Your task to perform on an android device: open the mobile data screen to see how much data has been used Image 0: 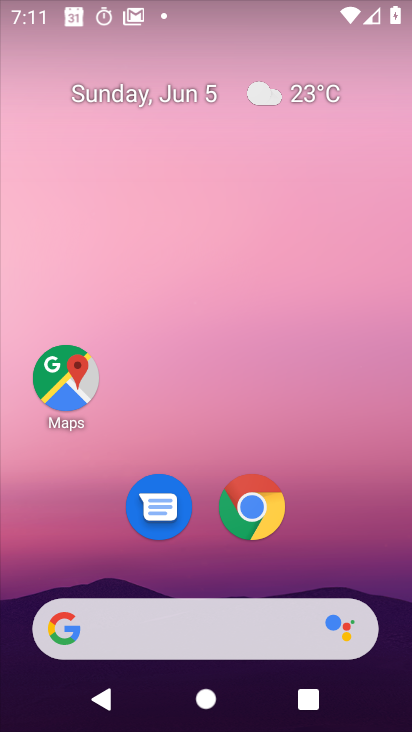
Step 0: drag from (269, 651) to (236, 131)
Your task to perform on an android device: open the mobile data screen to see how much data has been used Image 1: 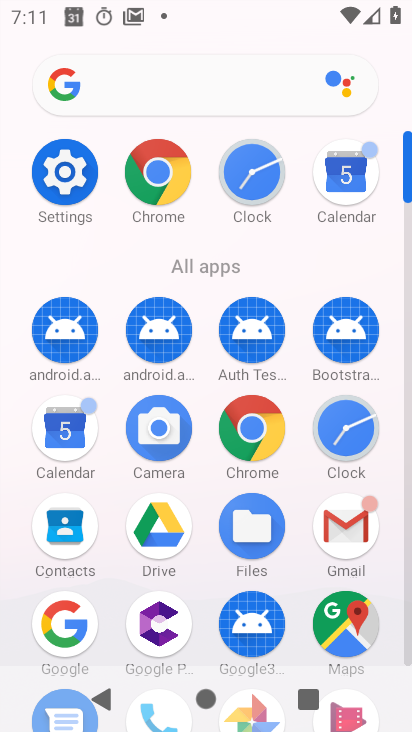
Step 1: click (74, 187)
Your task to perform on an android device: open the mobile data screen to see how much data has been used Image 2: 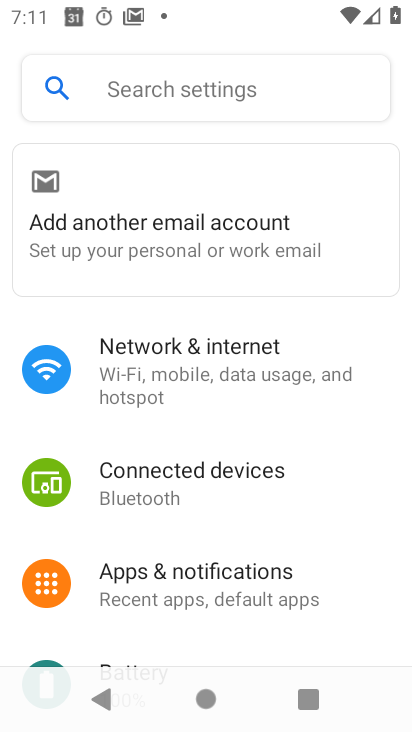
Step 2: click (218, 99)
Your task to perform on an android device: open the mobile data screen to see how much data has been used Image 3: 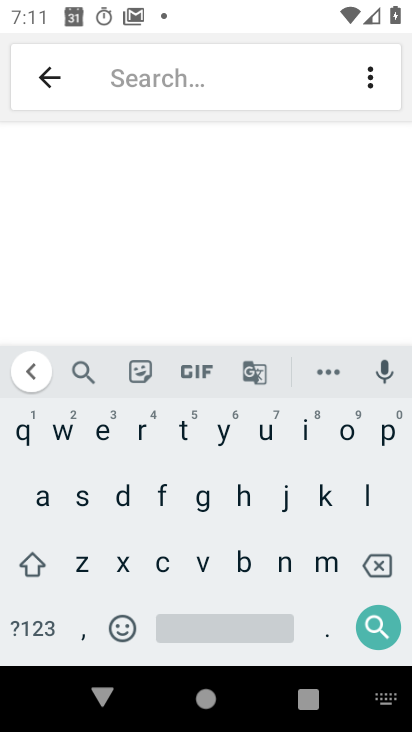
Step 3: click (119, 494)
Your task to perform on an android device: open the mobile data screen to see how much data has been used Image 4: 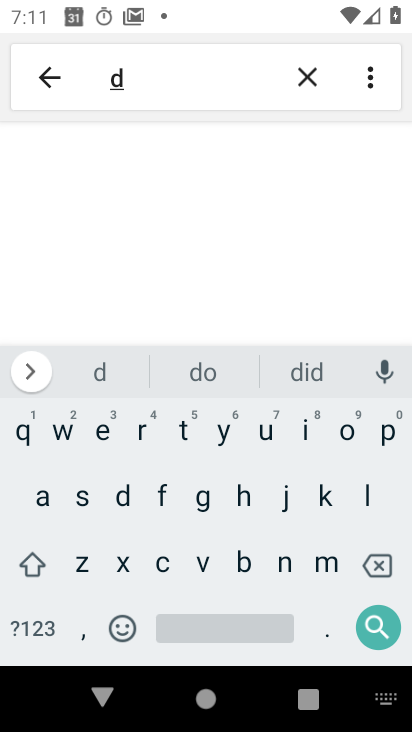
Step 4: click (35, 481)
Your task to perform on an android device: open the mobile data screen to see how much data has been used Image 5: 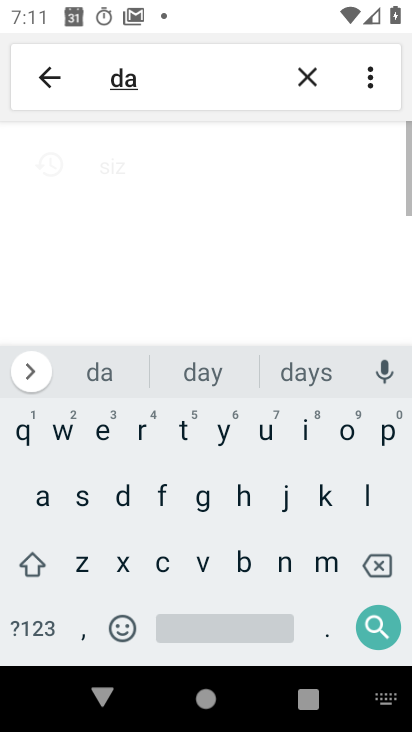
Step 5: click (178, 434)
Your task to perform on an android device: open the mobile data screen to see how much data has been used Image 6: 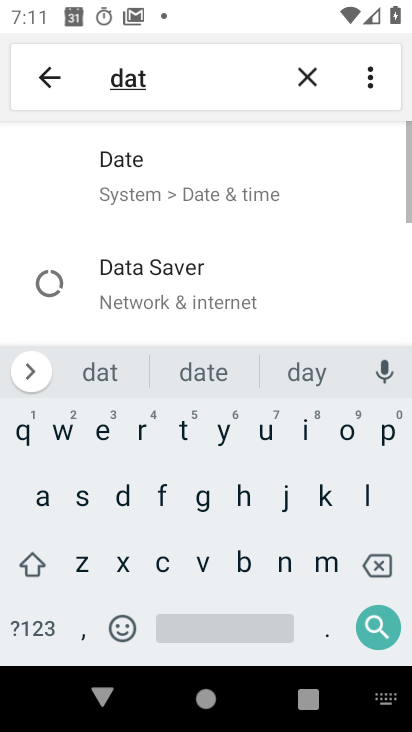
Step 6: click (45, 485)
Your task to perform on an android device: open the mobile data screen to see how much data has been used Image 7: 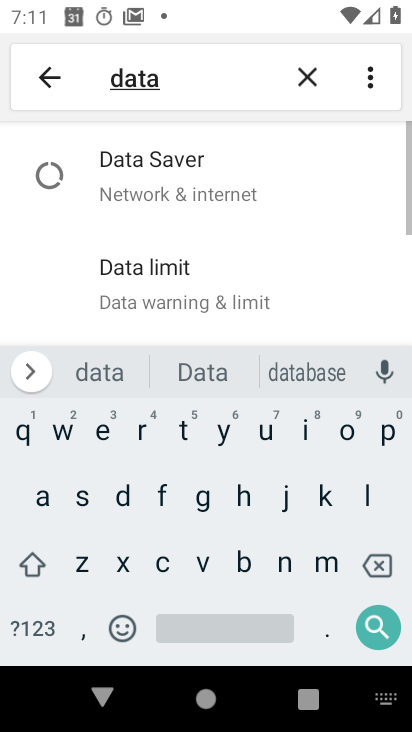
Step 7: click (189, 625)
Your task to perform on an android device: open the mobile data screen to see how much data has been used Image 8: 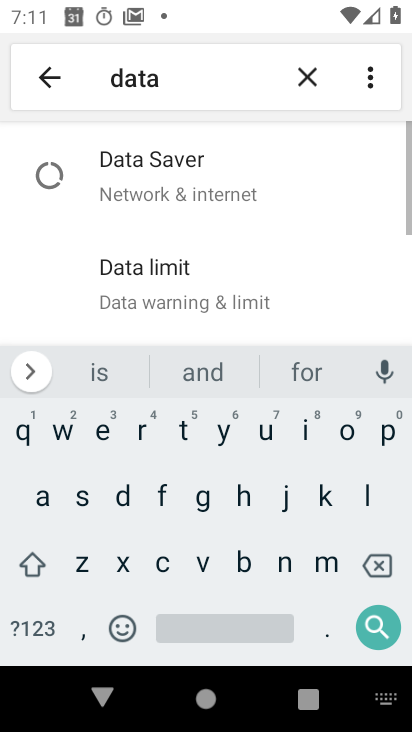
Step 8: click (268, 429)
Your task to perform on an android device: open the mobile data screen to see how much data has been used Image 9: 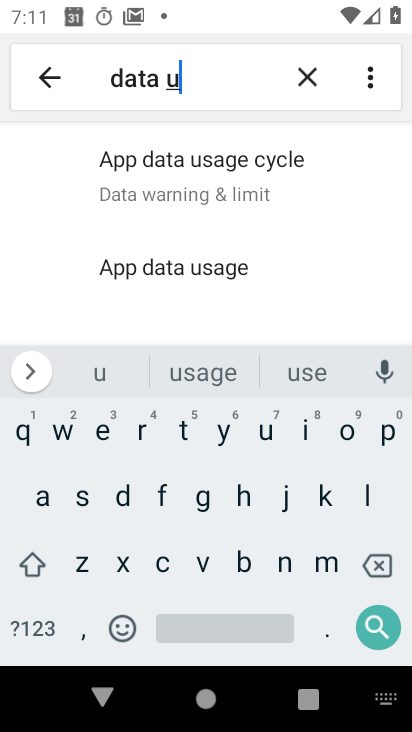
Step 9: click (180, 259)
Your task to perform on an android device: open the mobile data screen to see how much data has been used Image 10: 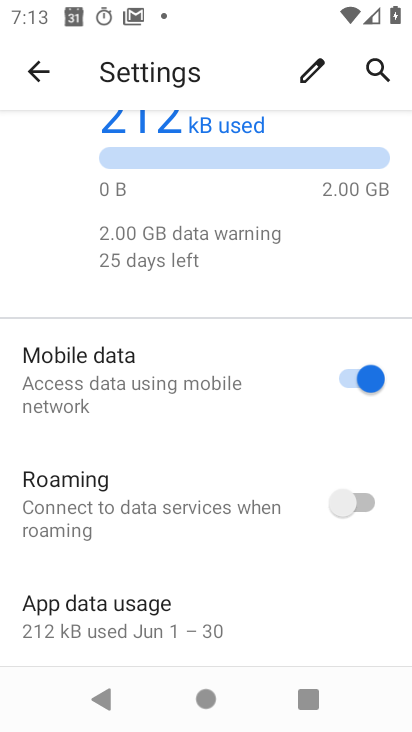
Step 10: task complete